Your task to perform on an android device: toggle sleep mode Image 0: 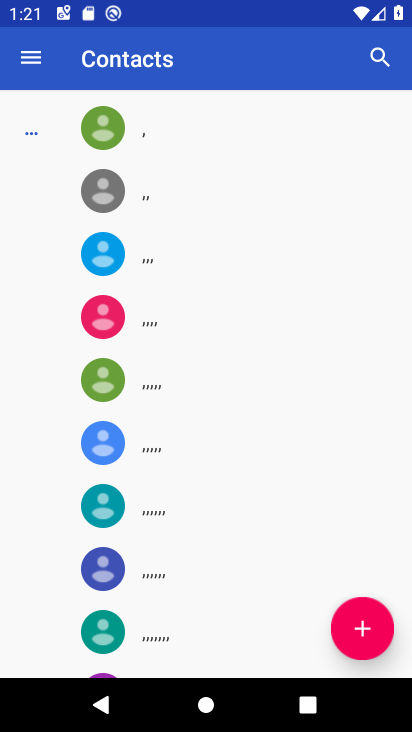
Step 0: press home button
Your task to perform on an android device: toggle sleep mode Image 1: 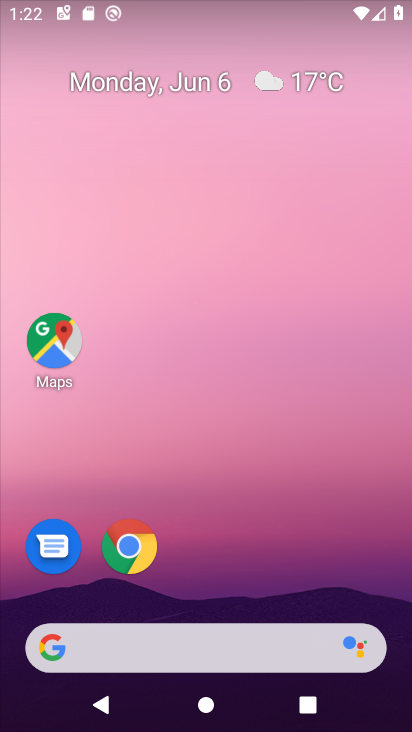
Step 1: drag from (210, 649) to (127, 47)
Your task to perform on an android device: toggle sleep mode Image 2: 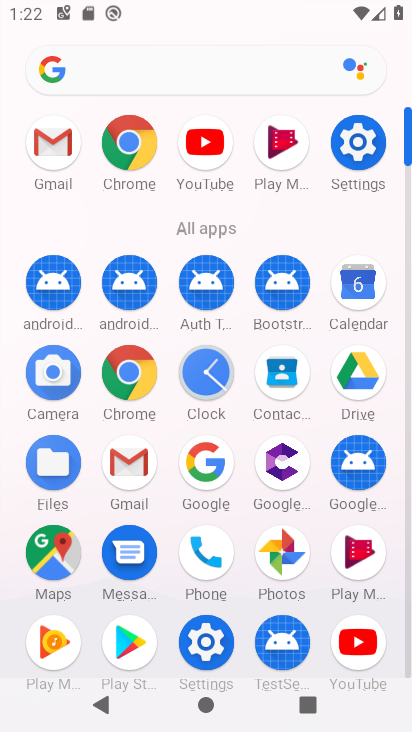
Step 2: click (365, 138)
Your task to perform on an android device: toggle sleep mode Image 3: 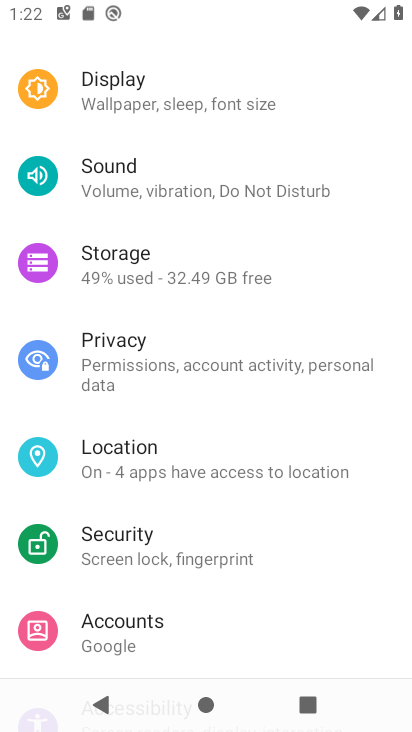
Step 3: click (208, 116)
Your task to perform on an android device: toggle sleep mode Image 4: 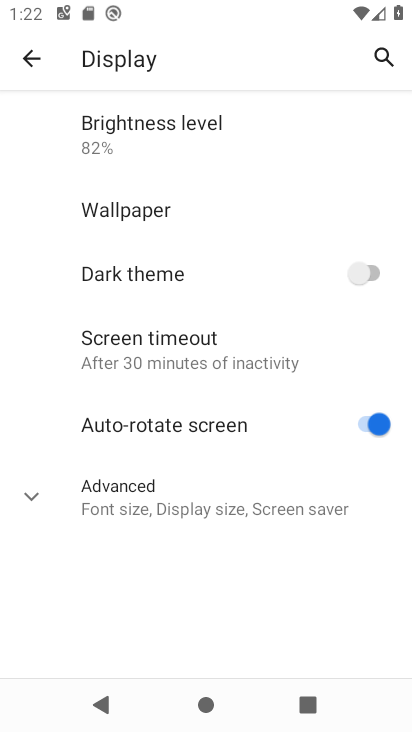
Step 4: click (137, 488)
Your task to perform on an android device: toggle sleep mode Image 5: 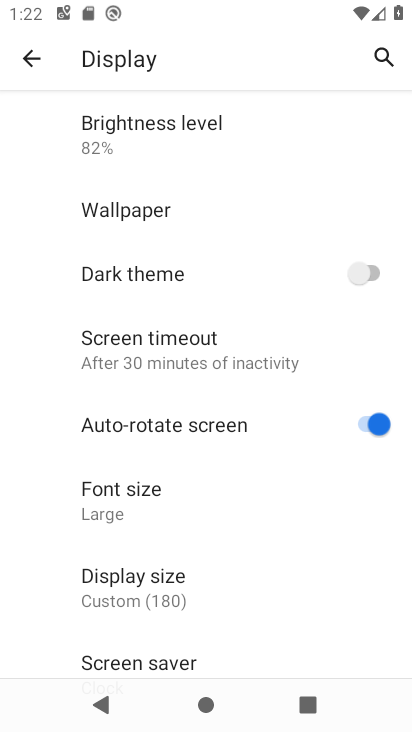
Step 5: task complete